Your task to perform on an android device: turn on bluetooth scan Image 0: 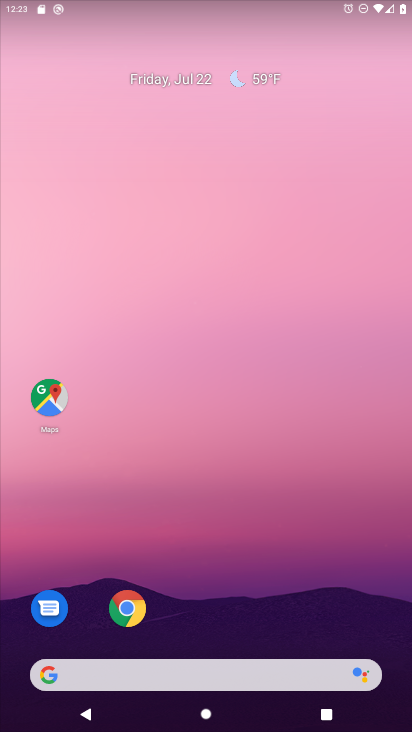
Step 0: click (117, 79)
Your task to perform on an android device: turn on bluetooth scan Image 1: 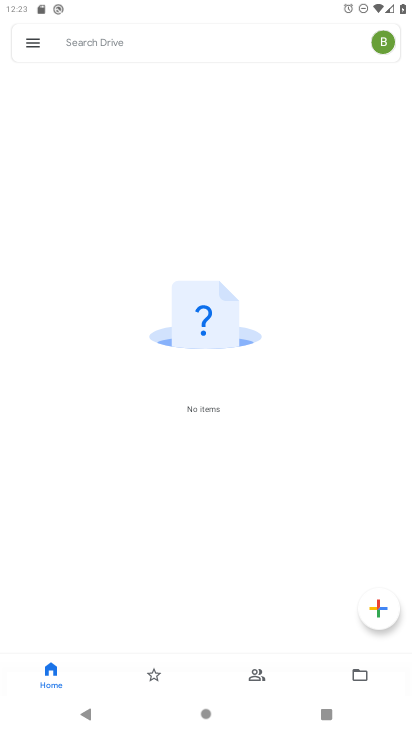
Step 1: press home button
Your task to perform on an android device: turn on bluetooth scan Image 2: 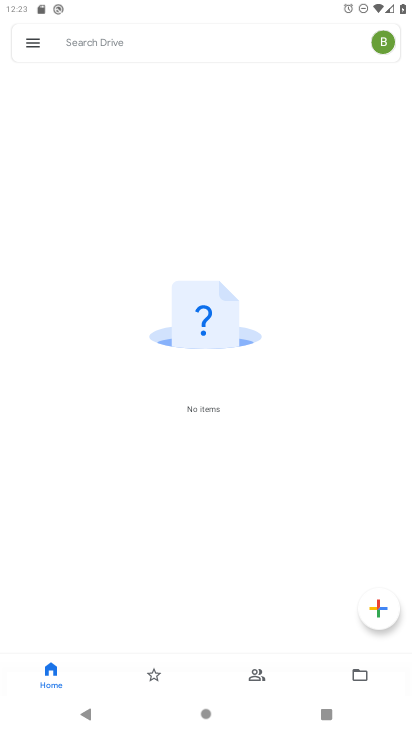
Step 2: drag from (361, 629) to (143, 37)
Your task to perform on an android device: turn on bluetooth scan Image 3: 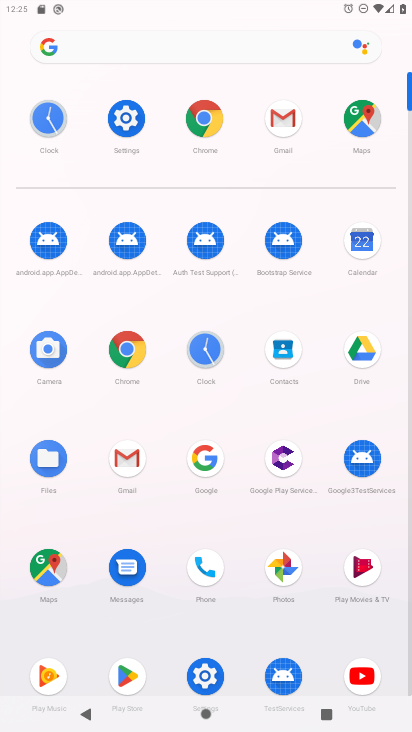
Step 3: click (193, 667)
Your task to perform on an android device: turn on bluetooth scan Image 4: 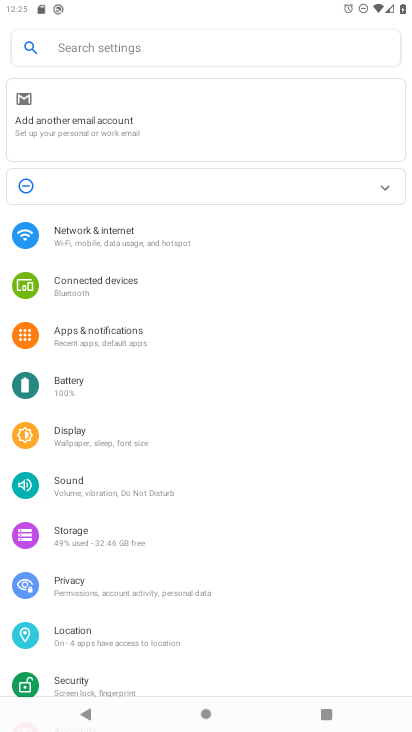
Step 4: click (96, 625)
Your task to perform on an android device: turn on bluetooth scan Image 5: 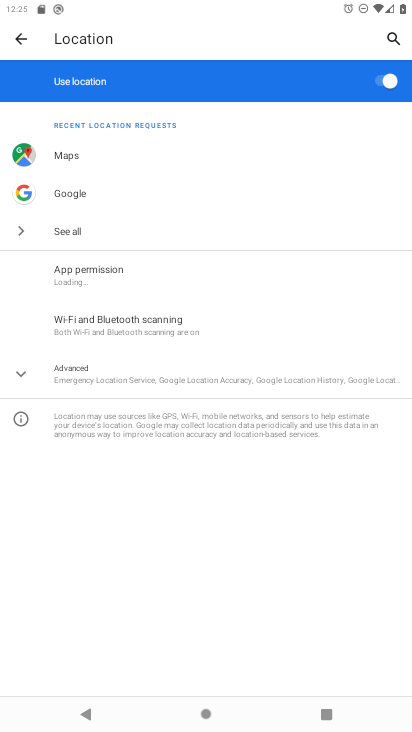
Step 5: click (151, 327)
Your task to perform on an android device: turn on bluetooth scan Image 6: 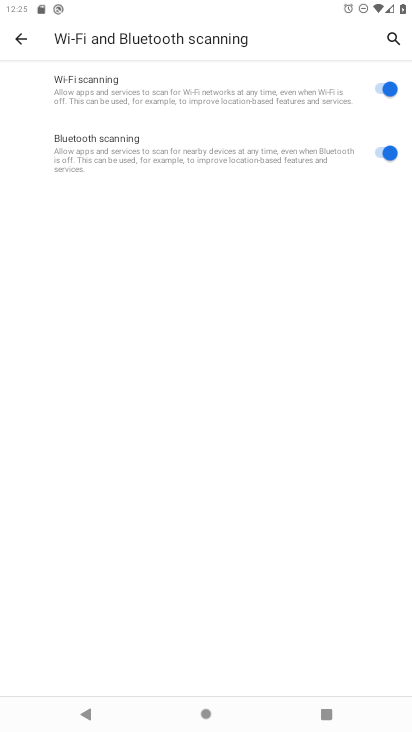
Step 6: task complete